Your task to perform on an android device: set the stopwatch Image 0: 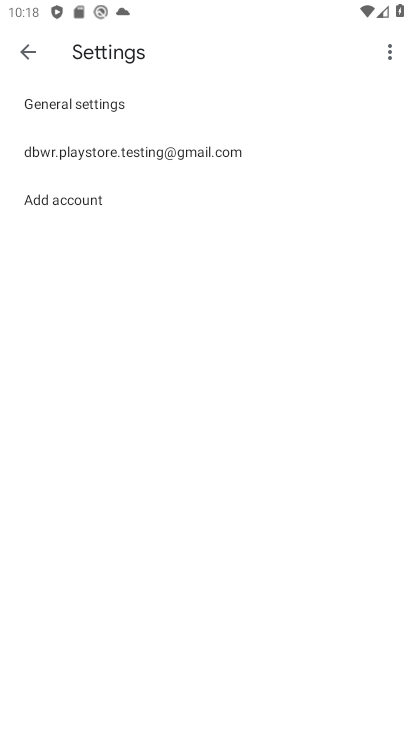
Step 0: press home button
Your task to perform on an android device: set the stopwatch Image 1: 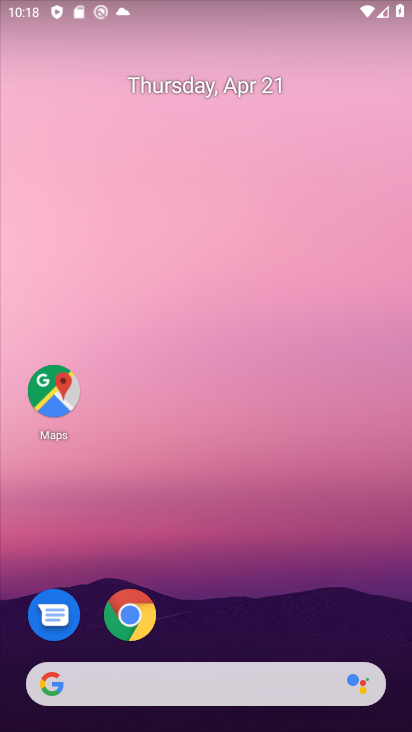
Step 1: drag from (217, 643) to (311, 58)
Your task to perform on an android device: set the stopwatch Image 2: 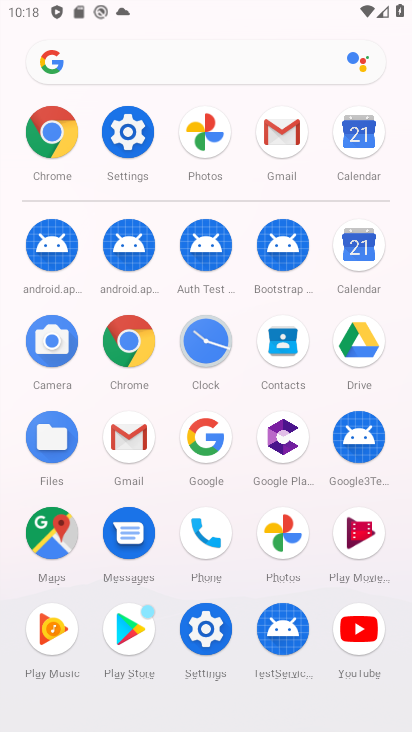
Step 2: click (204, 337)
Your task to perform on an android device: set the stopwatch Image 3: 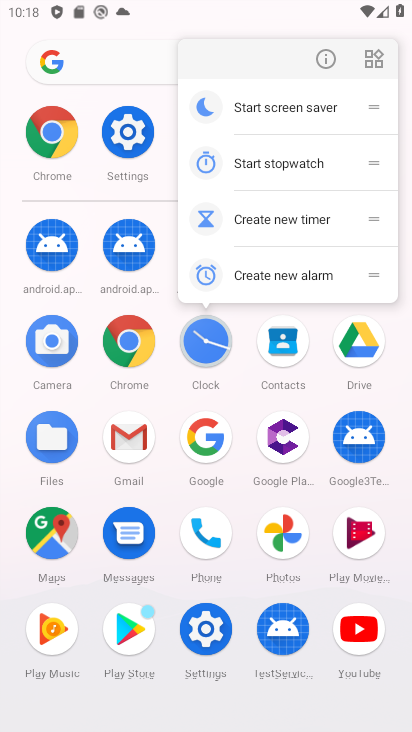
Step 3: click (204, 336)
Your task to perform on an android device: set the stopwatch Image 4: 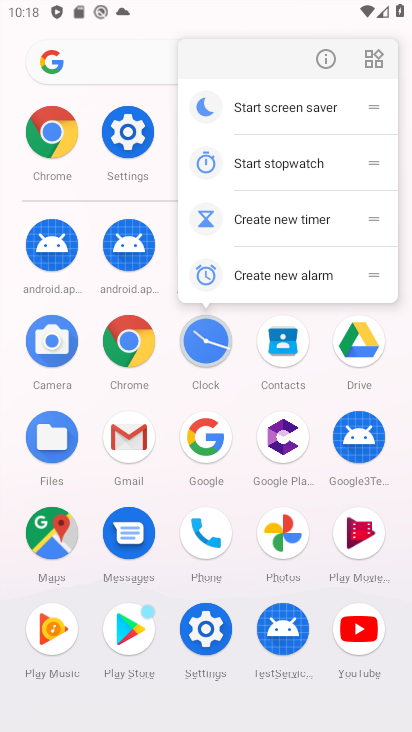
Step 4: click (204, 332)
Your task to perform on an android device: set the stopwatch Image 5: 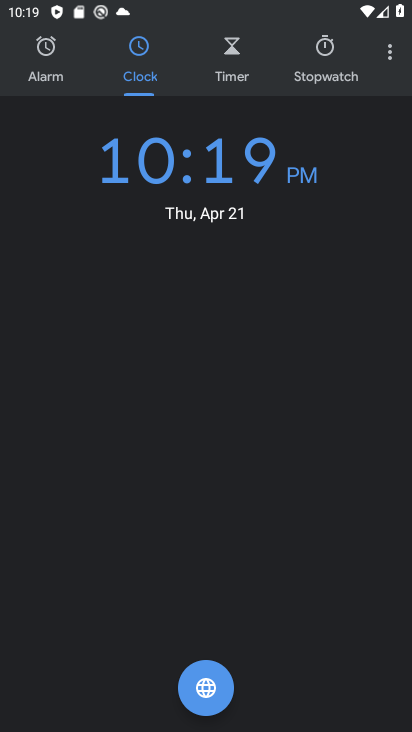
Step 5: click (326, 42)
Your task to perform on an android device: set the stopwatch Image 6: 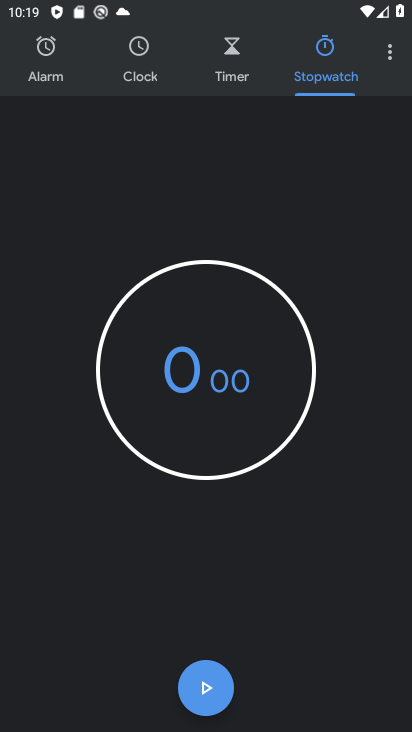
Step 6: click (206, 680)
Your task to perform on an android device: set the stopwatch Image 7: 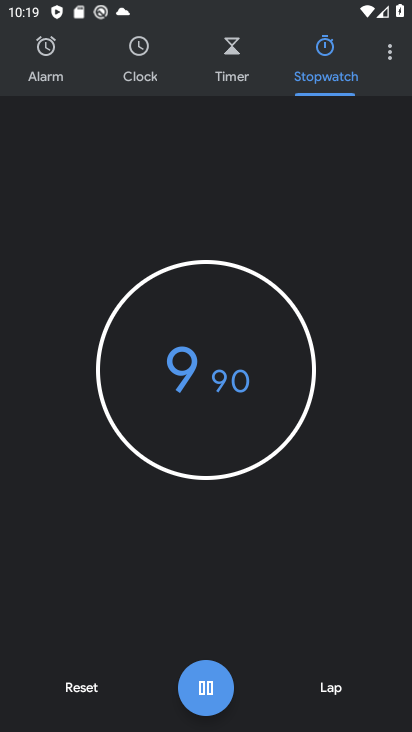
Step 7: click (82, 682)
Your task to perform on an android device: set the stopwatch Image 8: 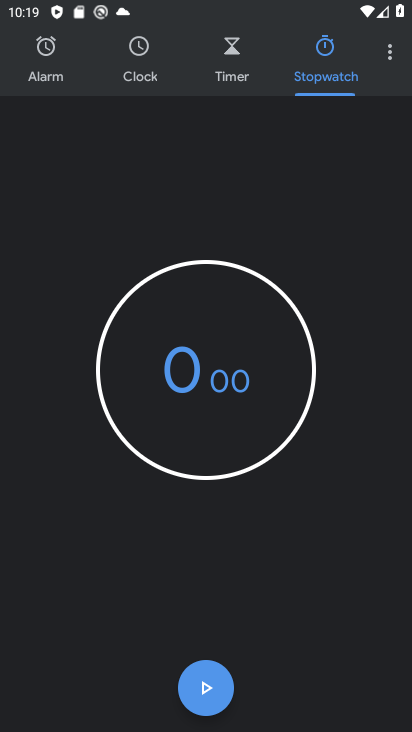
Step 8: task complete